Your task to perform on an android device: Open the phone app and click the voicemail tab. Image 0: 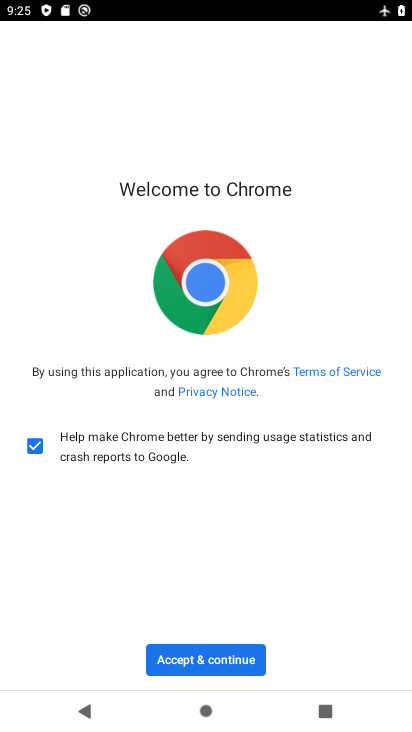
Step 0: click (196, 656)
Your task to perform on an android device: Open the phone app and click the voicemail tab. Image 1: 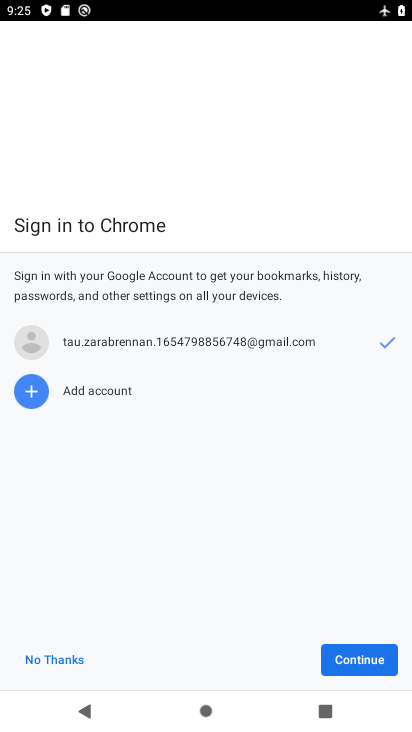
Step 1: click (330, 666)
Your task to perform on an android device: Open the phone app and click the voicemail tab. Image 2: 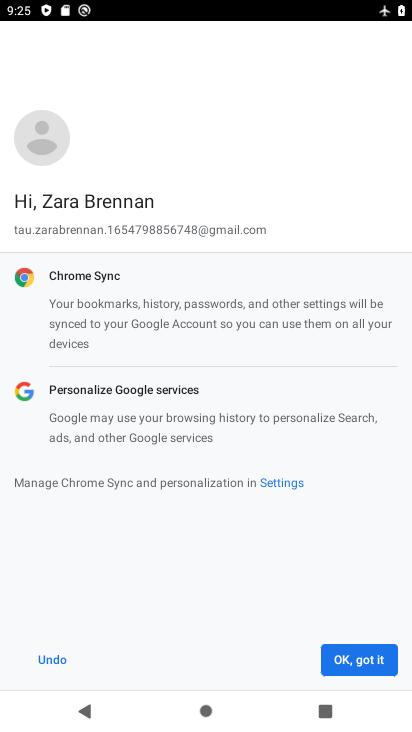
Step 2: click (332, 662)
Your task to perform on an android device: Open the phone app and click the voicemail tab. Image 3: 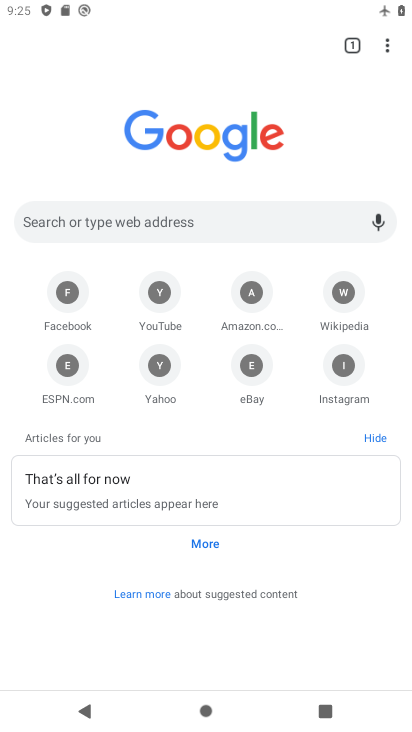
Step 3: press back button
Your task to perform on an android device: Open the phone app and click the voicemail tab. Image 4: 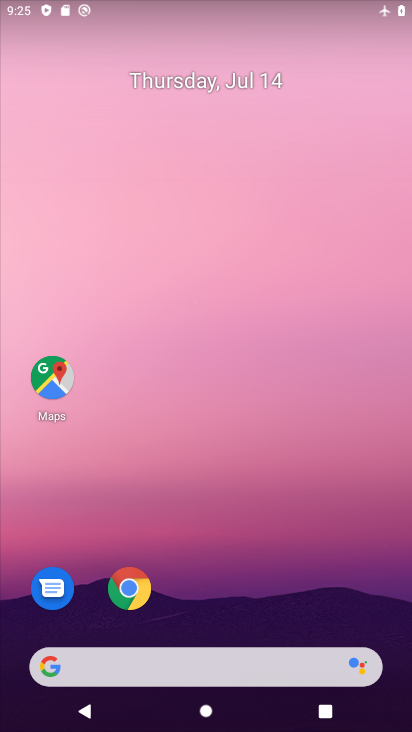
Step 4: drag from (246, 628) to (324, 90)
Your task to perform on an android device: Open the phone app and click the voicemail tab. Image 5: 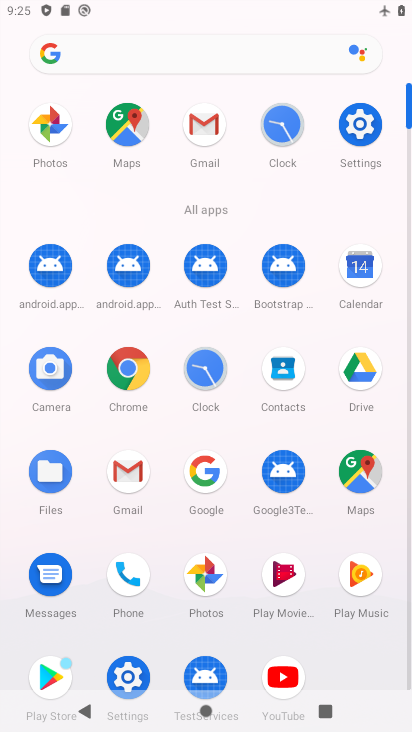
Step 5: click (123, 580)
Your task to perform on an android device: Open the phone app and click the voicemail tab. Image 6: 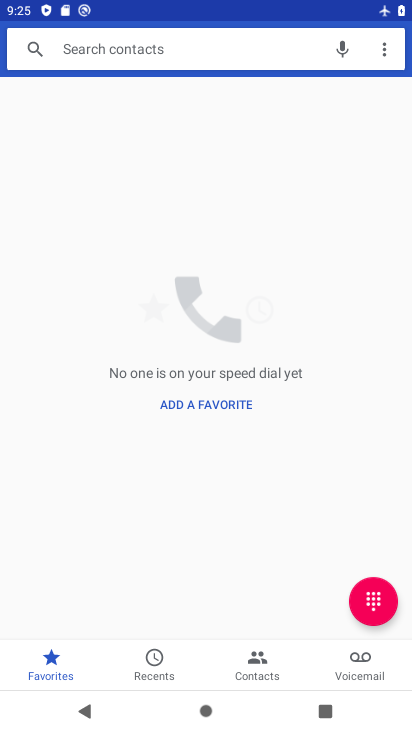
Step 6: click (396, 676)
Your task to perform on an android device: Open the phone app and click the voicemail tab. Image 7: 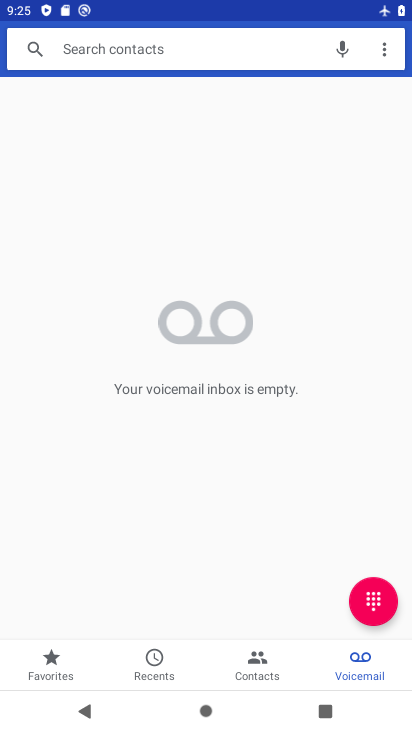
Step 7: task complete